Your task to perform on an android device: Search for "macbook pro" on walmart.com, select the first entry, and add it to the cart. Image 0: 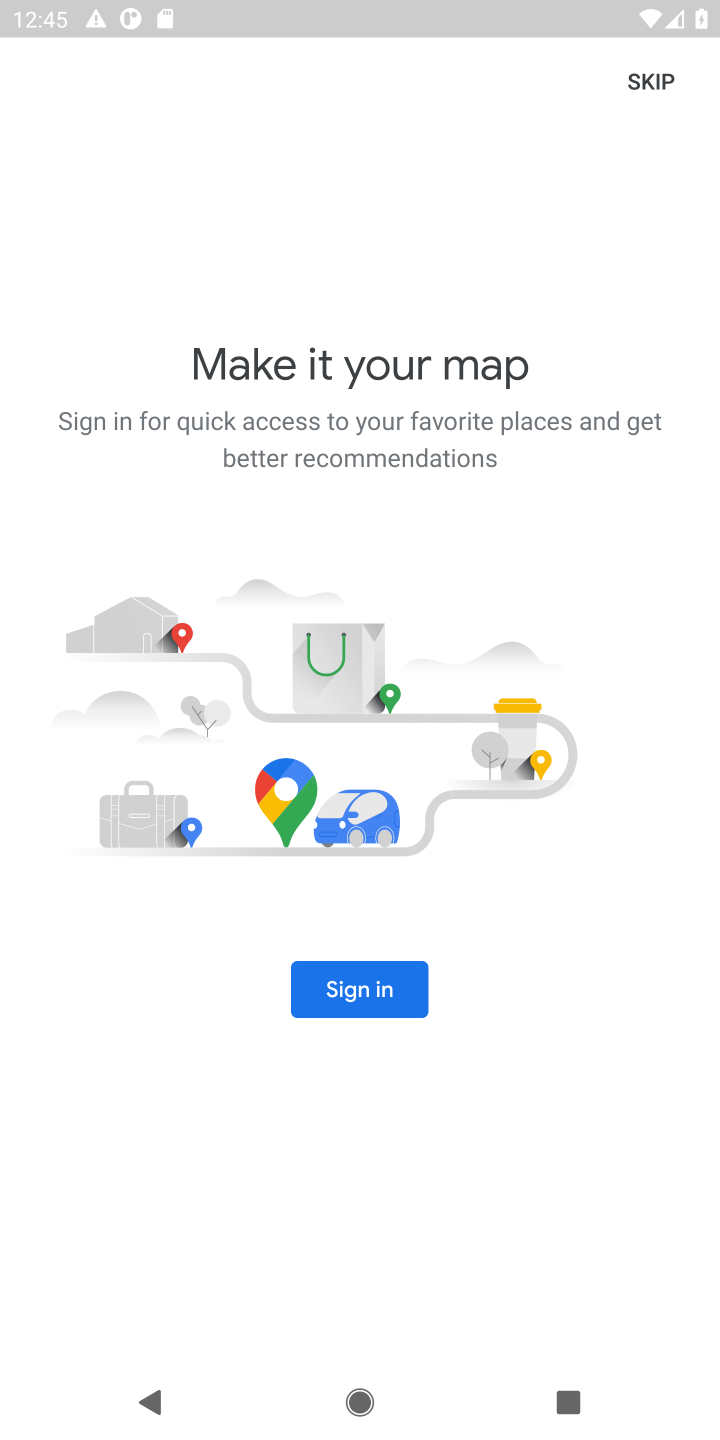
Step 0: press home button
Your task to perform on an android device: Search for "macbook pro" on walmart.com, select the first entry, and add it to the cart. Image 1: 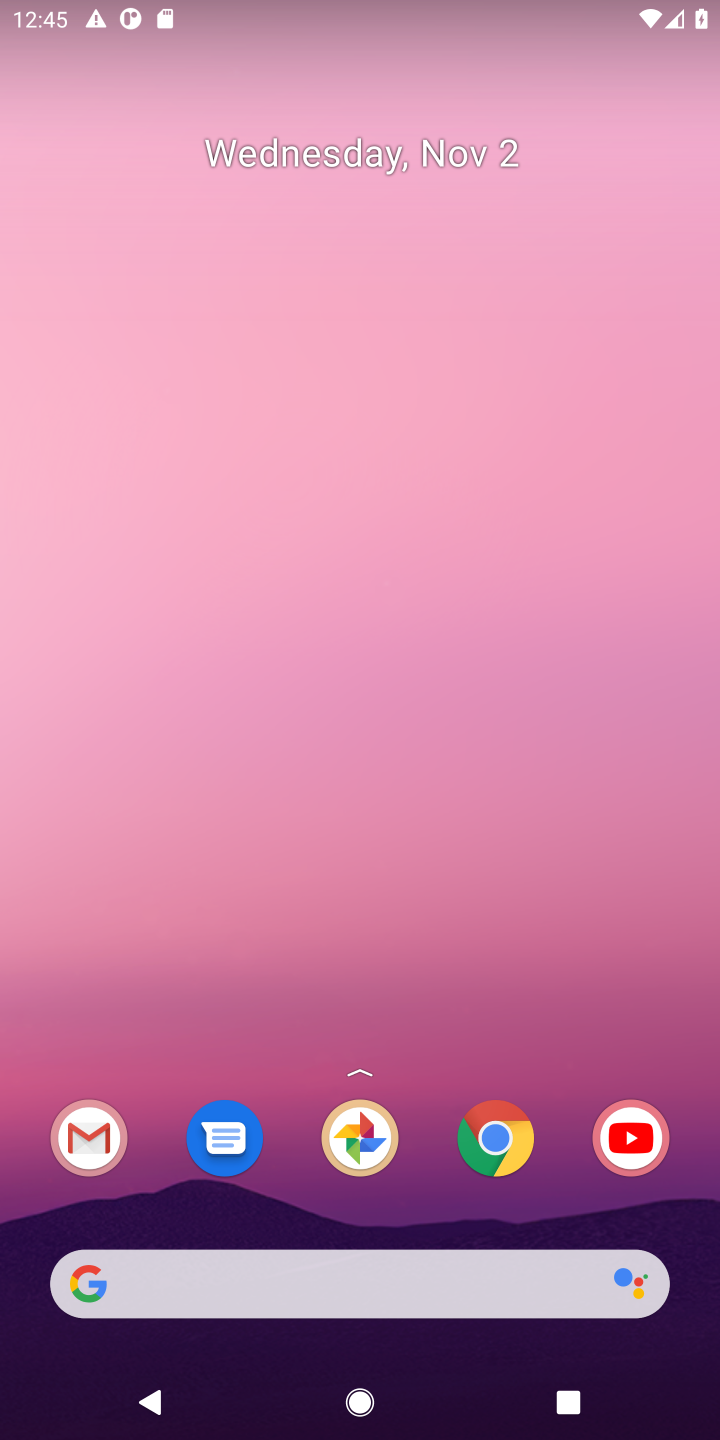
Step 1: click (645, 70)
Your task to perform on an android device: Search for "macbook pro" on walmart.com, select the first entry, and add it to the cart. Image 2: 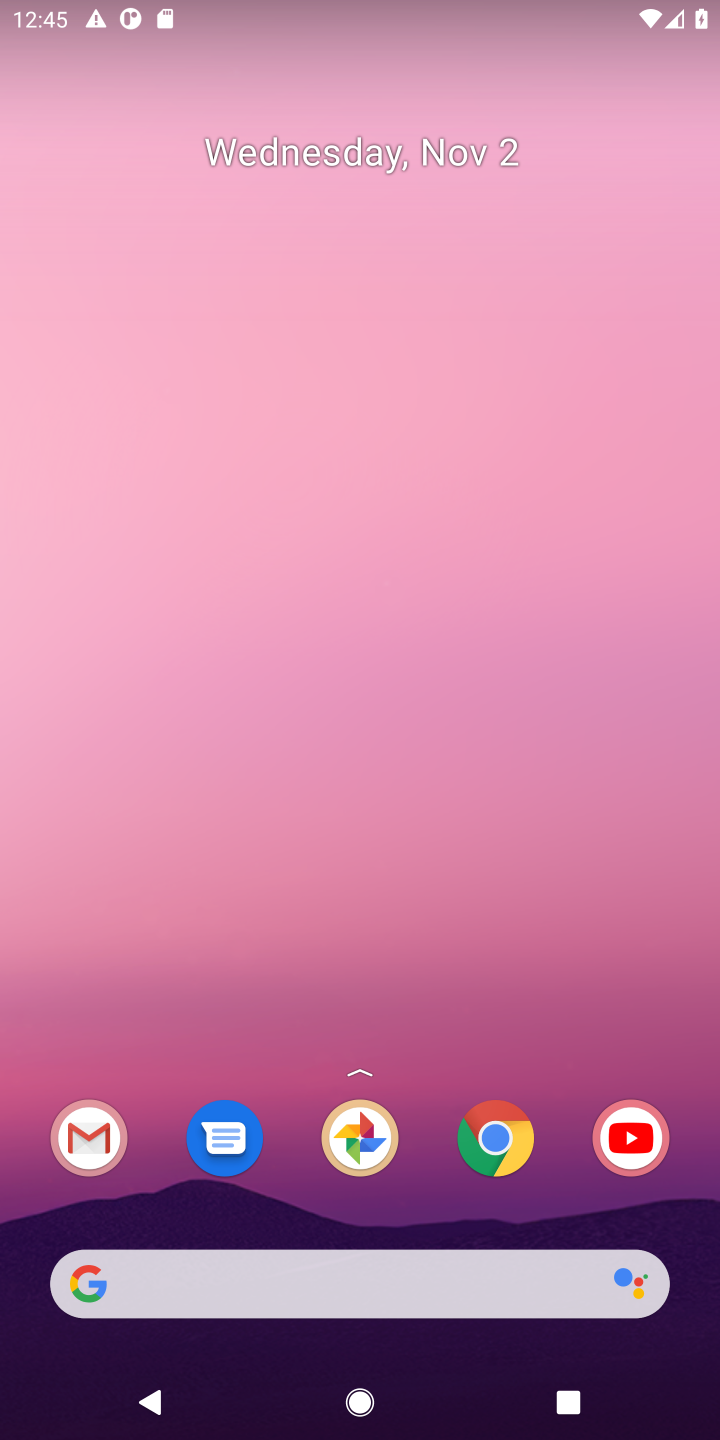
Step 2: click (496, 1143)
Your task to perform on an android device: Search for "macbook pro" on walmart.com, select the first entry, and add it to the cart. Image 3: 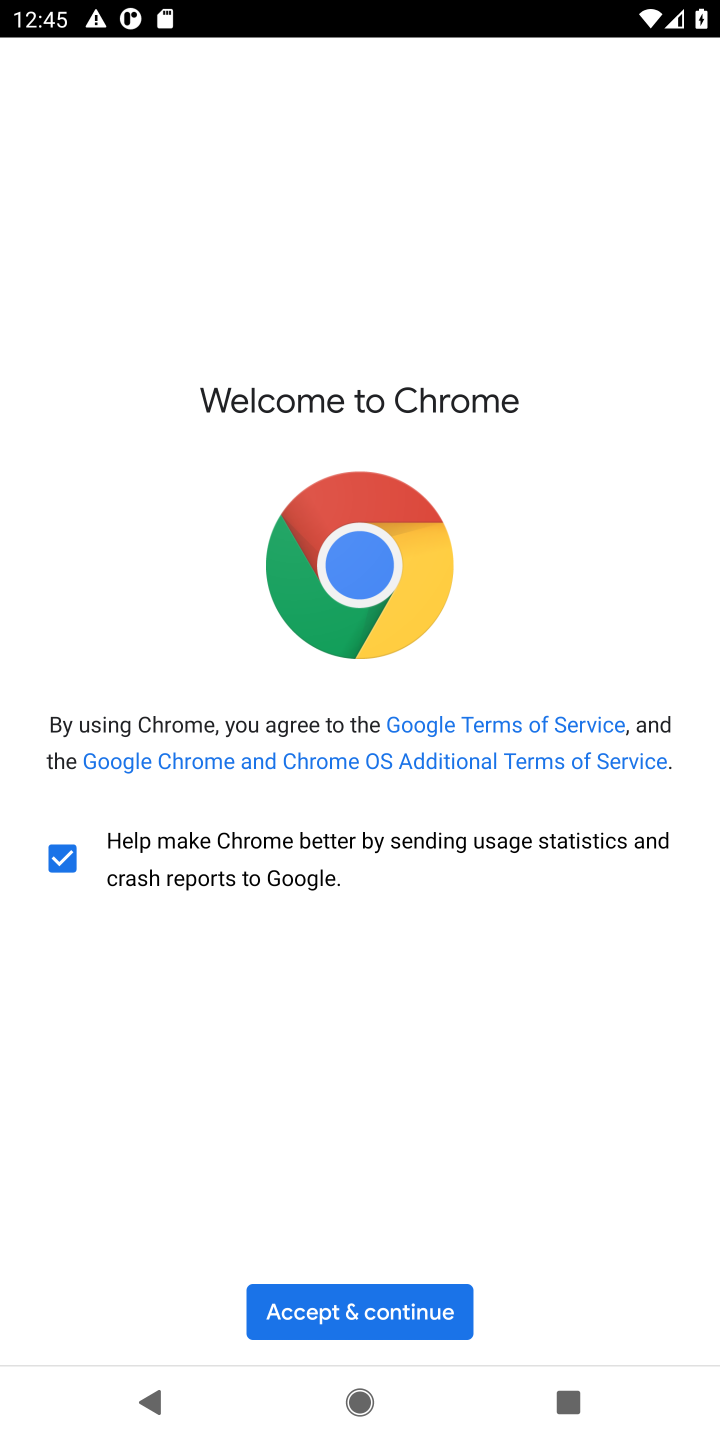
Step 3: click (366, 1322)
Your task to perform on an android device: Search for "macbook pro" on walmart.com, select the first entry, and add it to the cart. Image 4: 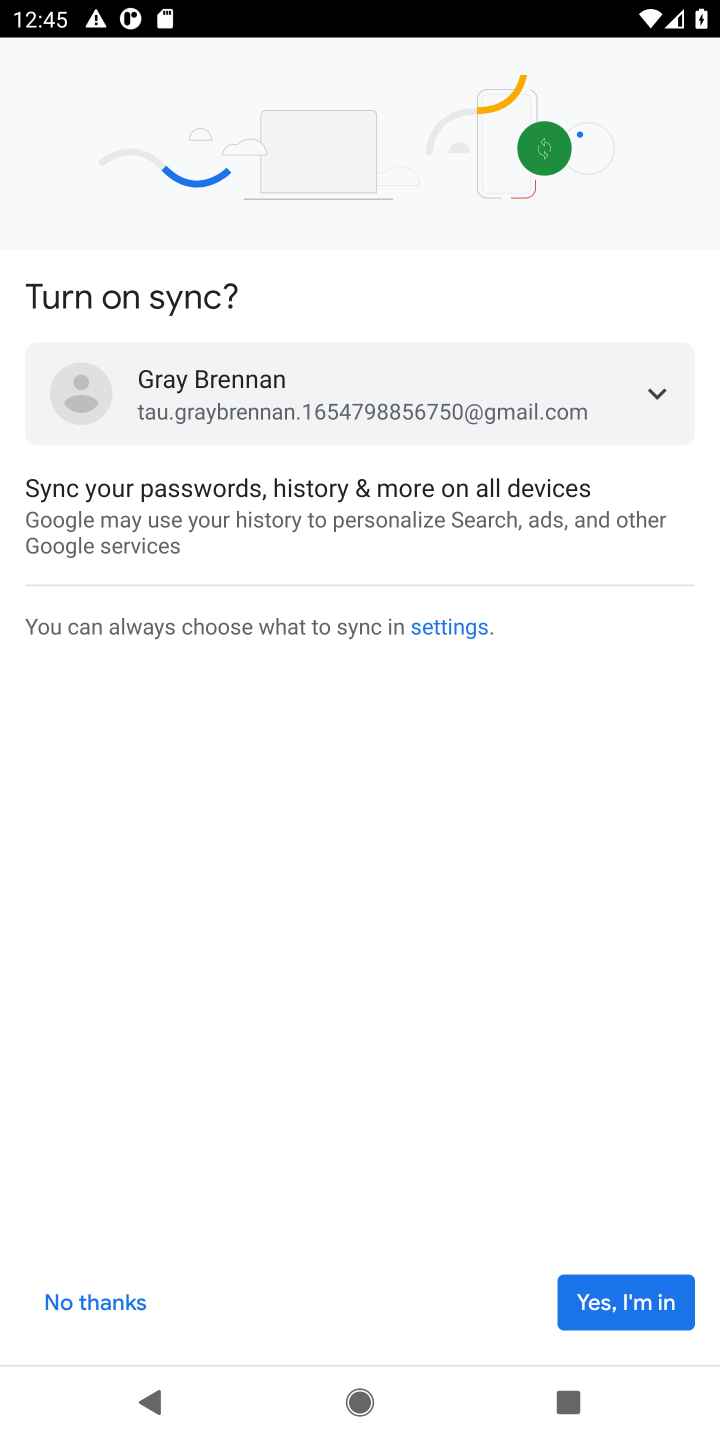
Step 4: click (618, 1294)
Your task to perform on an android device: Search for "macbook pro" on walmart.com, select the first entry, and add it to the cart. Image 5: 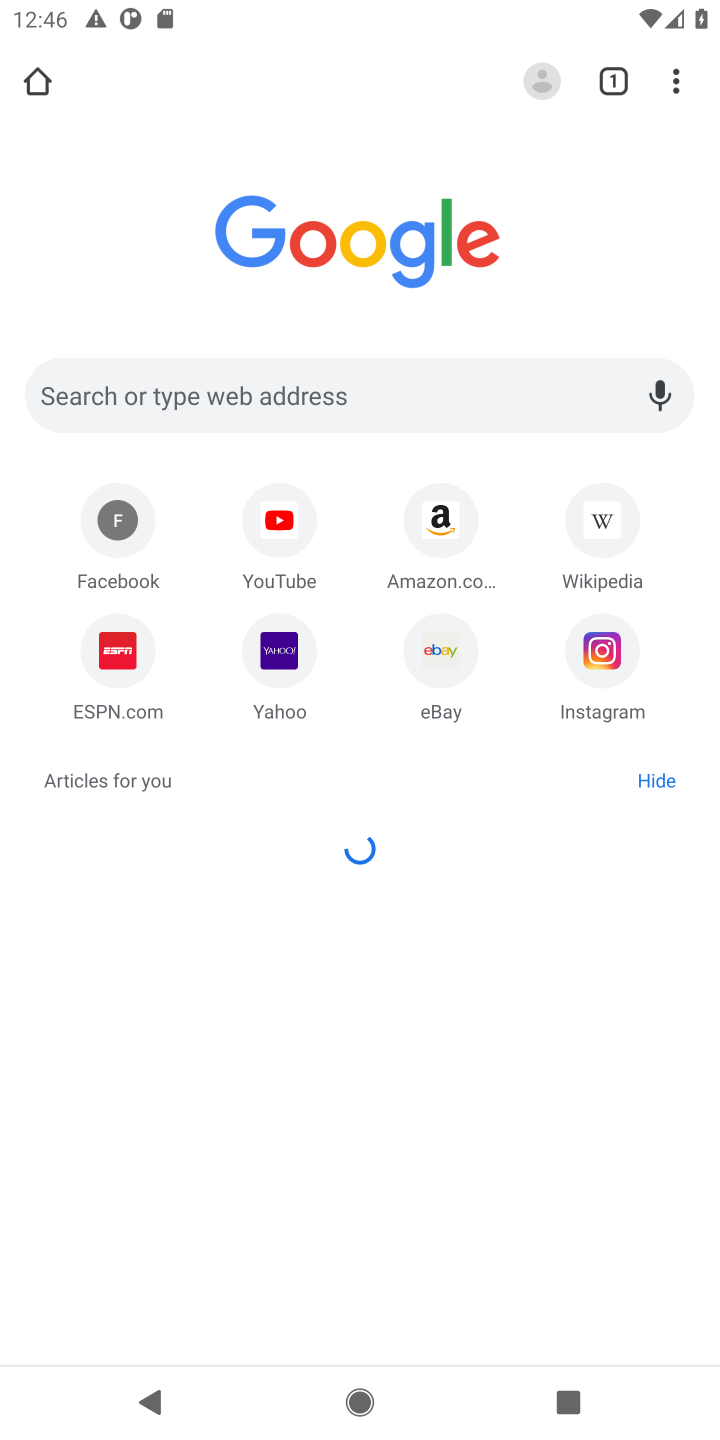
Step 5: click (342, 391)
Your task to perform on an android device: Search for "macbook pro" on walmart.com, select the first entry, and add it to the cart. Image 6: 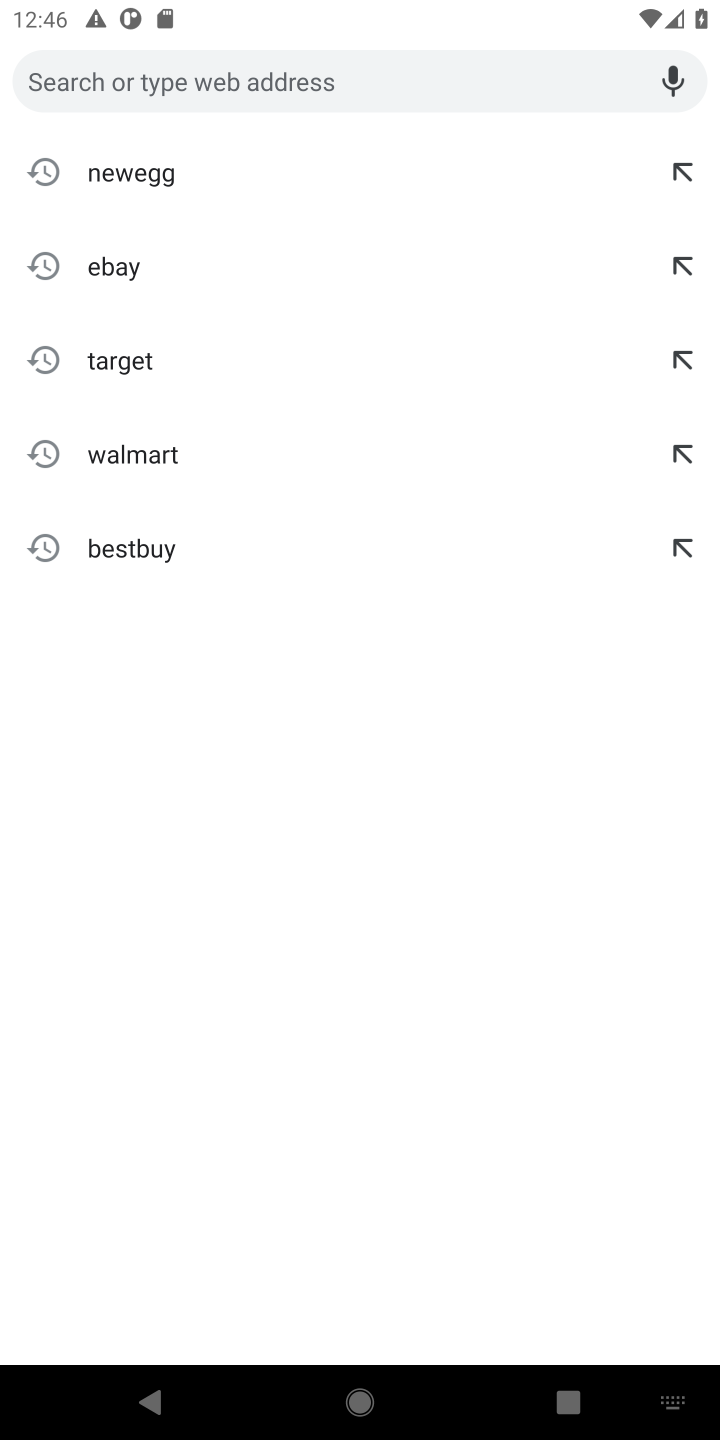
Step 6: type "walmart"
Your task to perform on an android device: Search for "macbook pro" on walmart.com, select the first entry, and add it to the cart. Image 7: 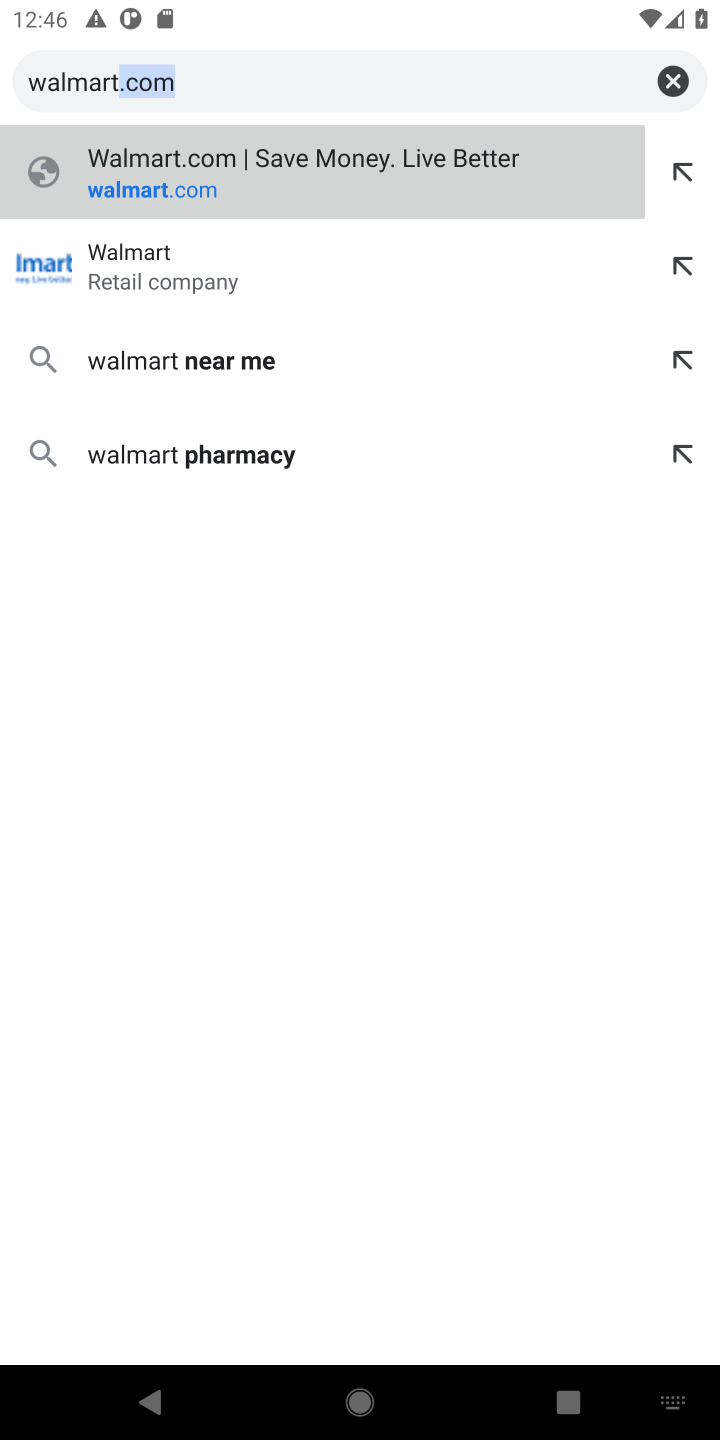
Step 7: click (287, 211)
Your task to perform on an android device: Search for "macbook pro" on walmart.com, select the first entry, and add it to the cart. Image 8: 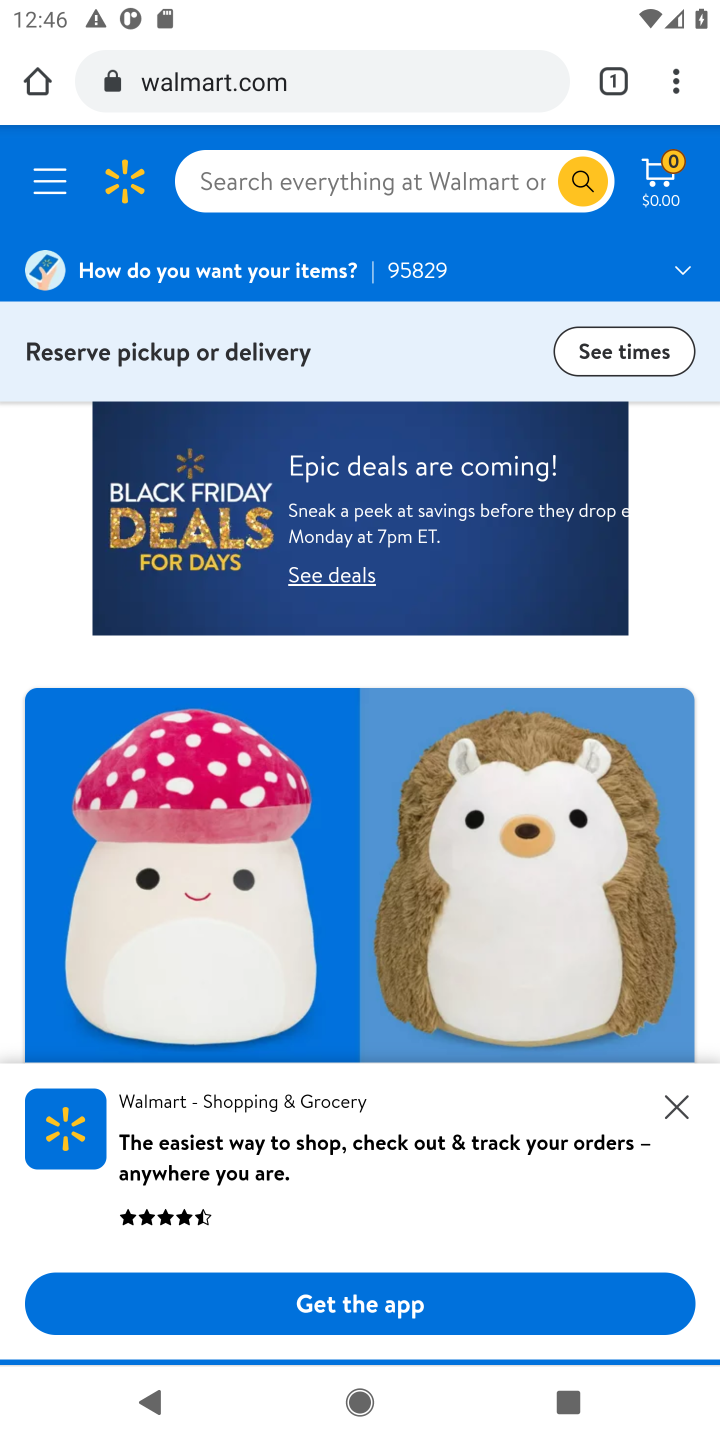
Step 8: click (442, 164)
Your task to perform on an android device: Search for "macbook pro" on walmart.com, select the first entry, and add it to the cart. Image 9: 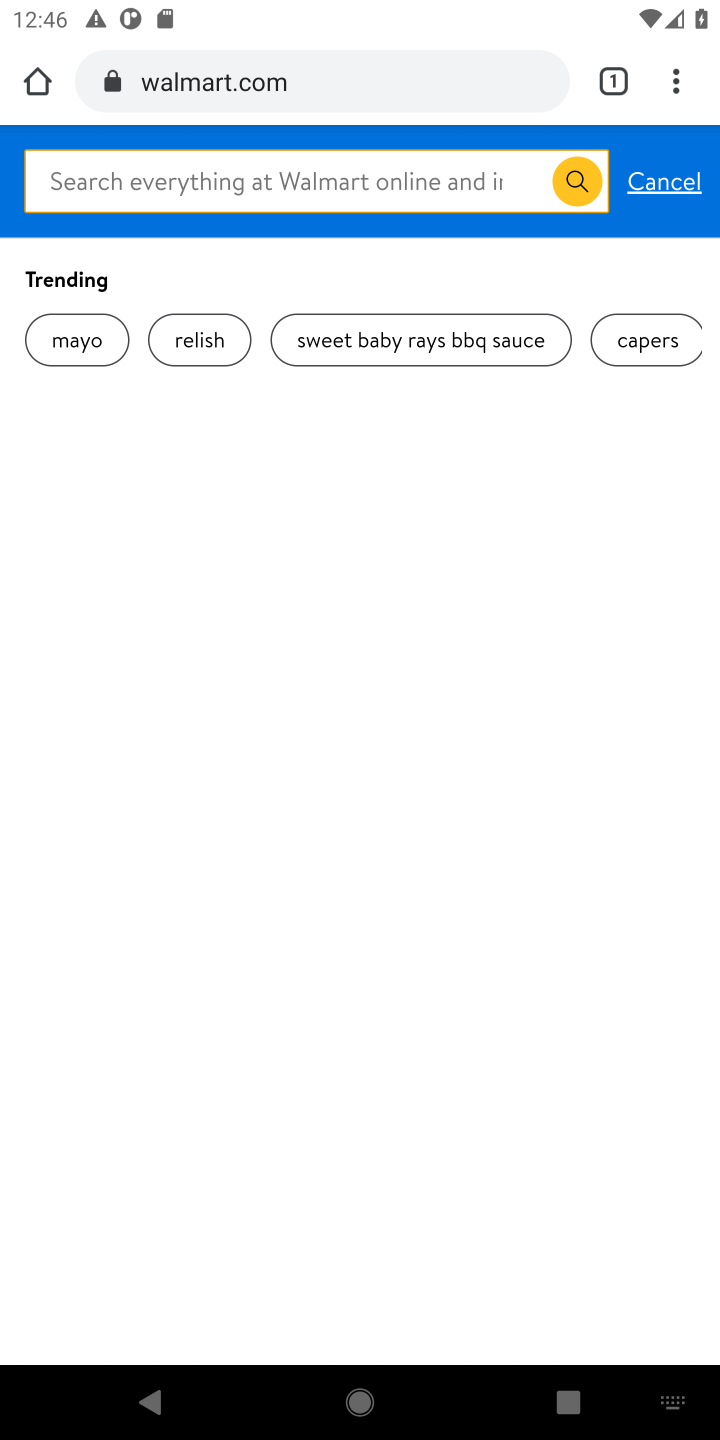
Step 9: press enter
Your task to perform on an android device: Search for "macbook pro" on walmart.com, select the first entry, and add it to the cart. Image 10: 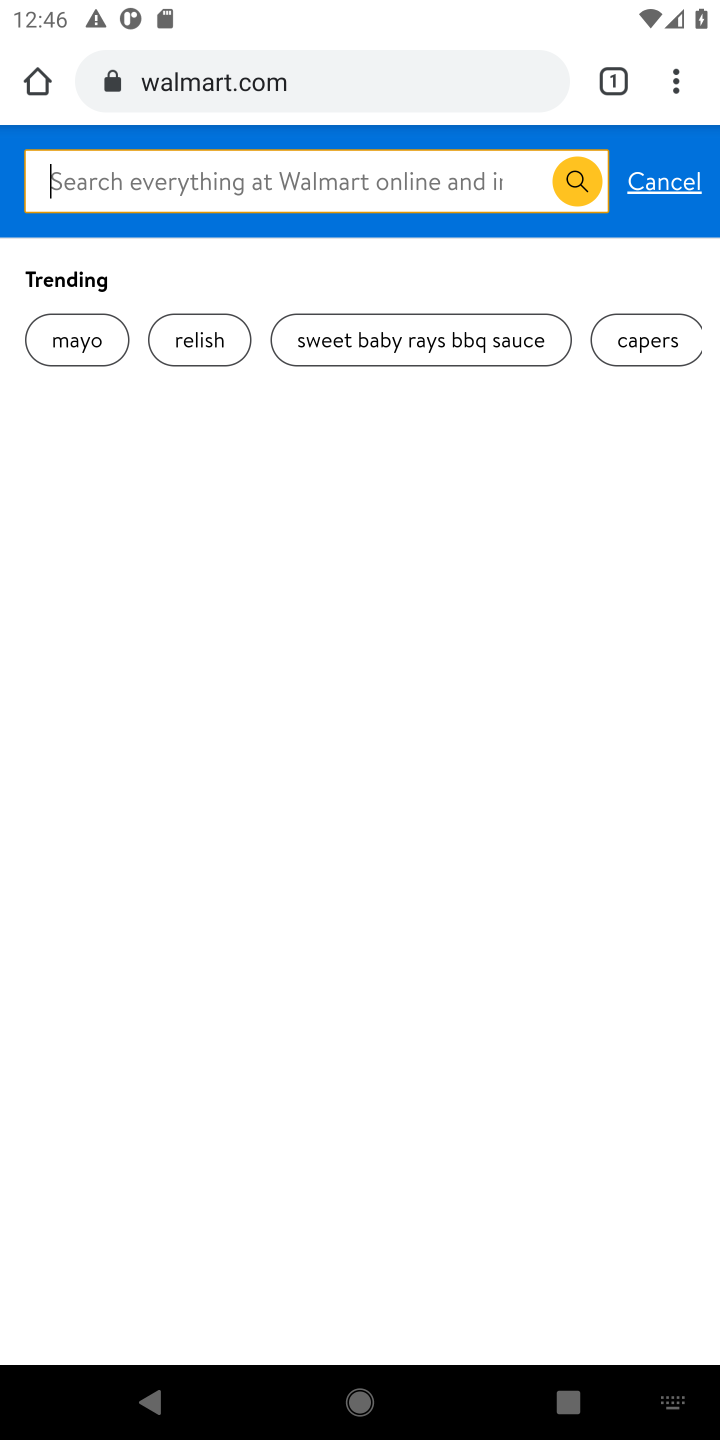
Step 10: type "macbook pro"
Your task to perform on an android device: Search for "macbook pro" on walmart.com, select the first entry, and add it to the cart. Image 11: 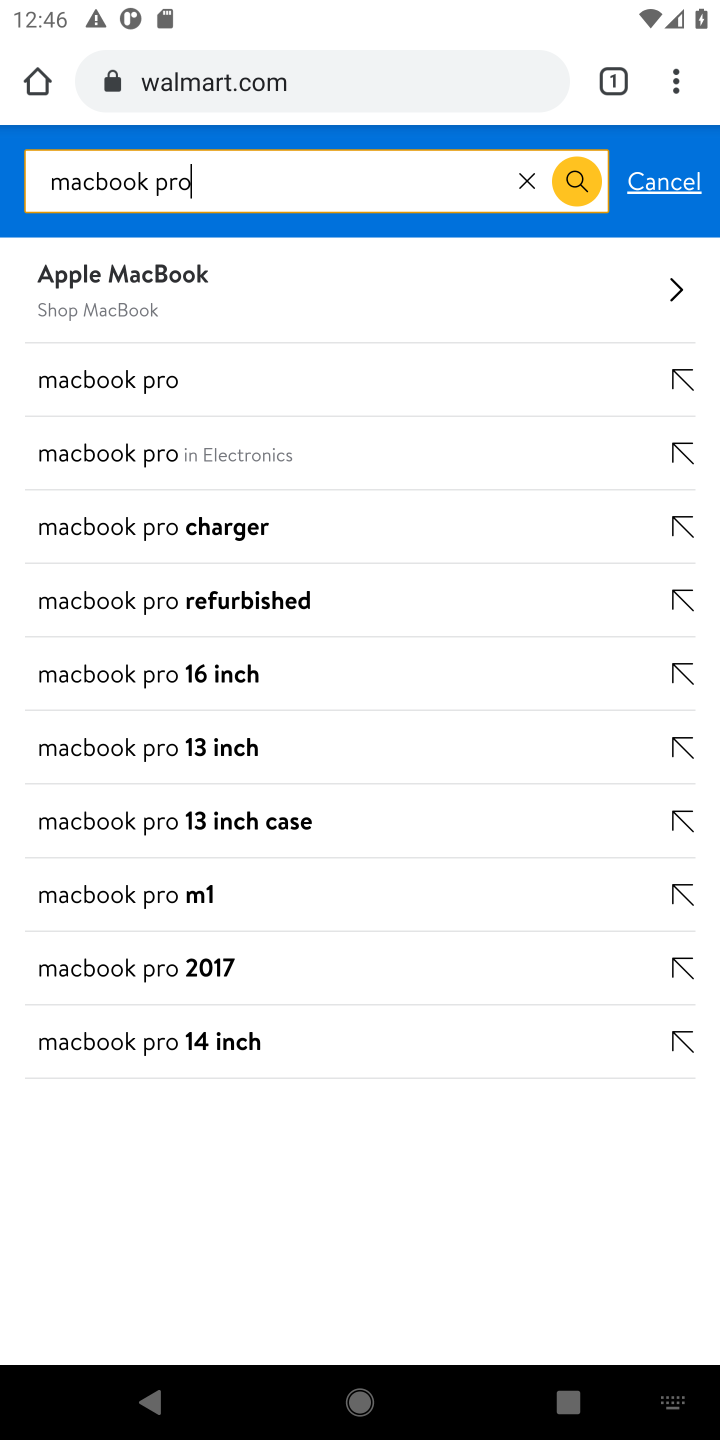
Step 11: click (133, 286)
Your task to perform on an android device: Search for "macbook pro" on walmart.com, select the first entry, and add it to the cart. Image 12: 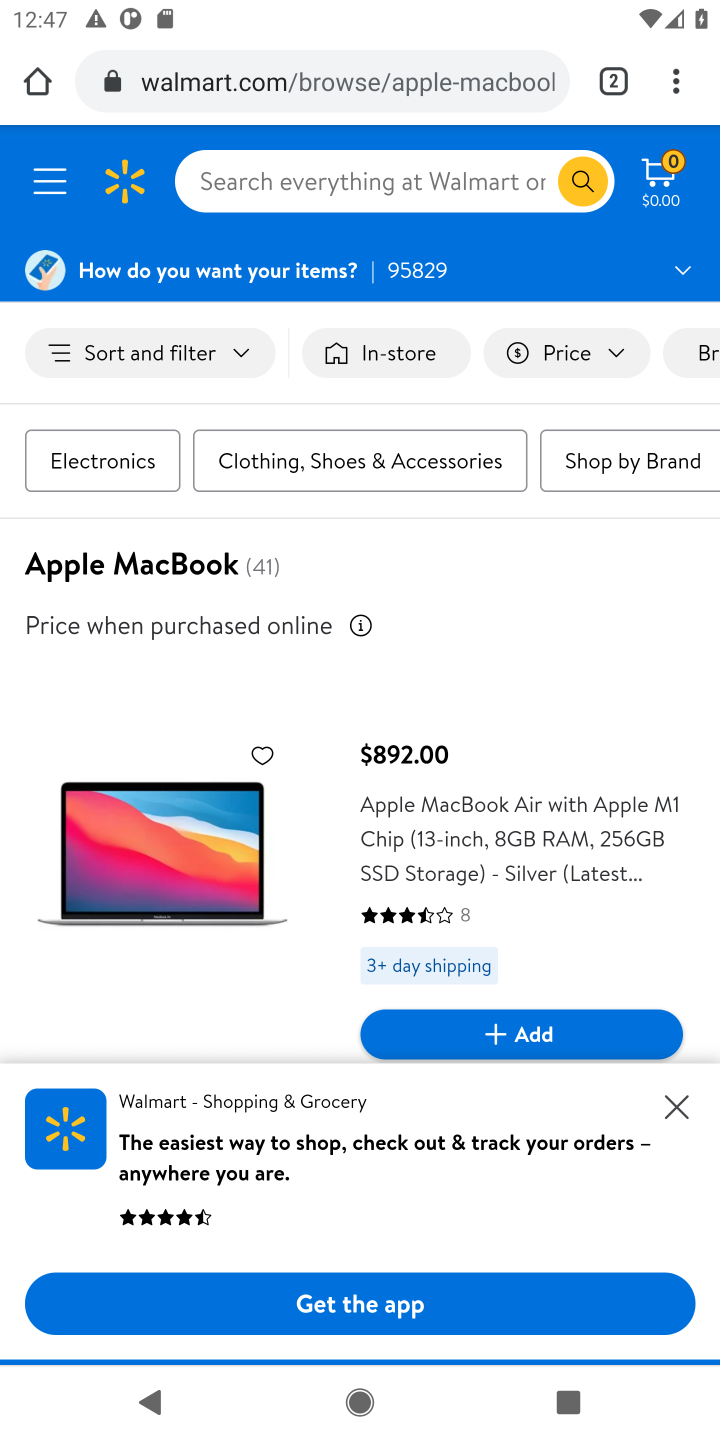
Step 12: click (553, 1044)
Your task to perform on an android device: Search for "macbook pro" on walmart.com, select the first entry, and add it to the cart. Image 13: 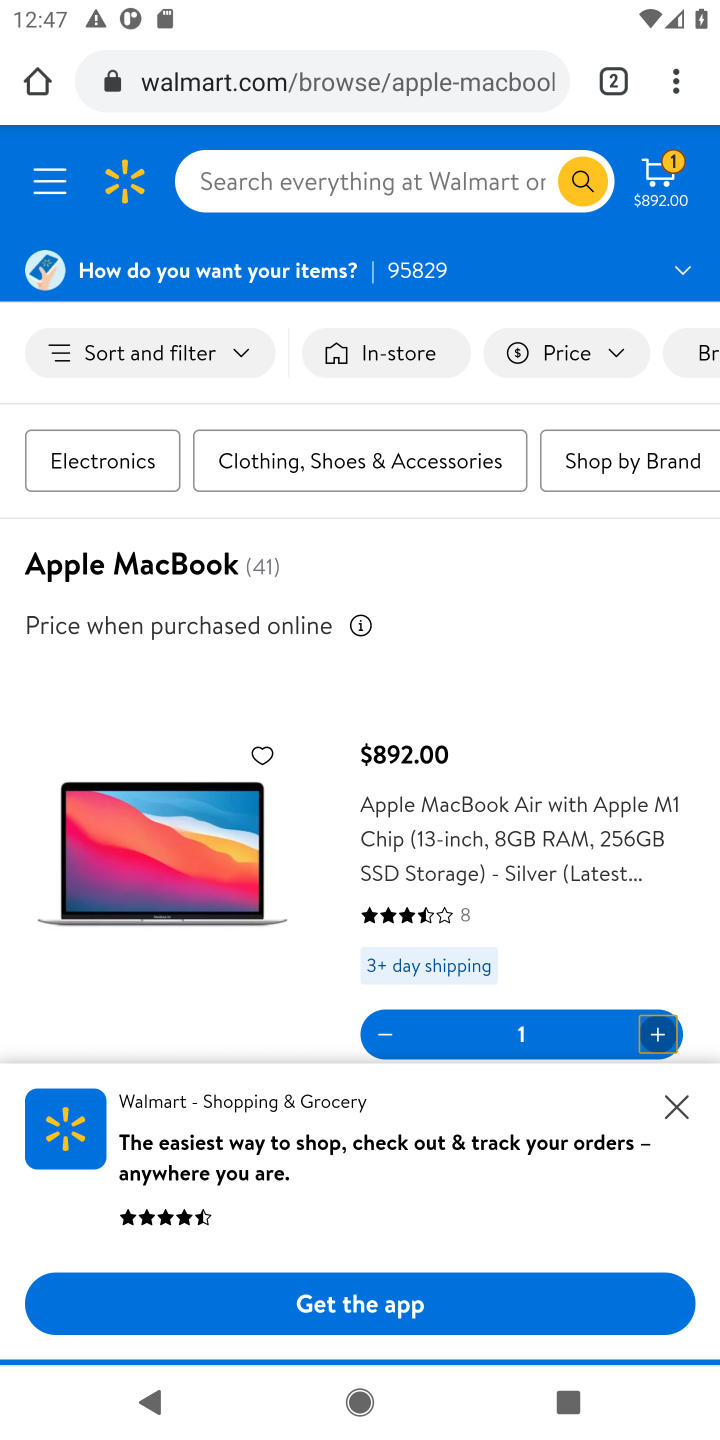
Step 13: task complete